Your task to perform on an android device: turn on location history Image 0: 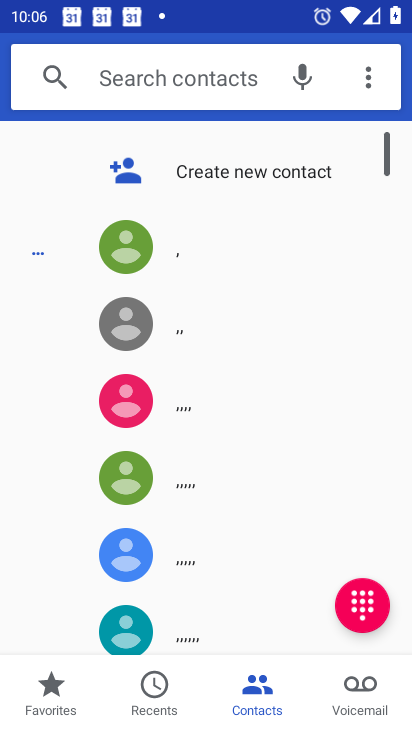
Step 0: press home button
Your task to perform on an android device: turn on location history Image 1: 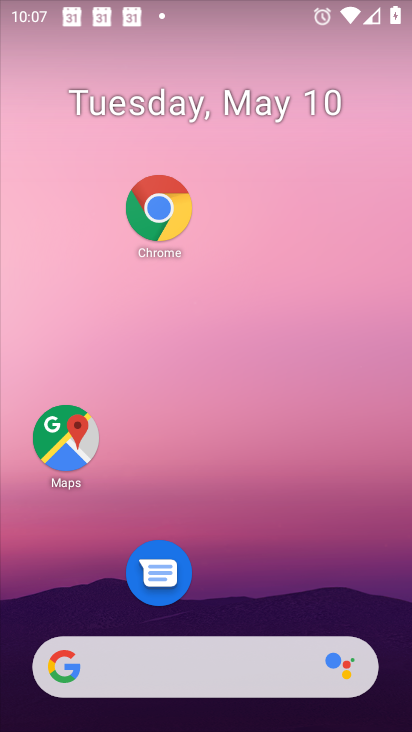
Step 1: drag from (288, 681) to (323, 229)
Your task to perform on an android device: turn on location history Image 2: 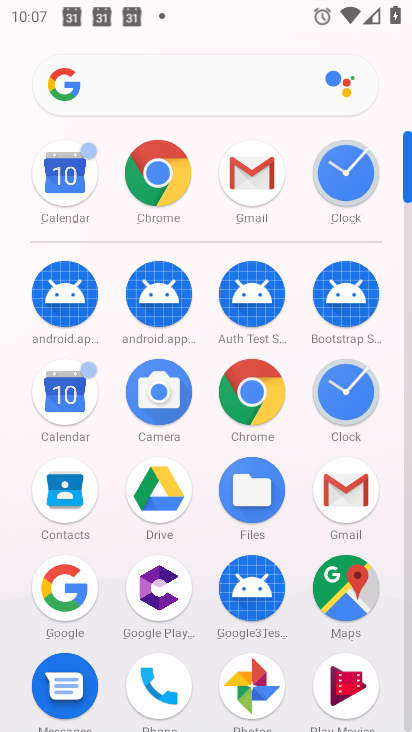
Step 2: drag from (192, 536) to (202, 337)
Your task to perform on an android device: turn on location history Image 3: 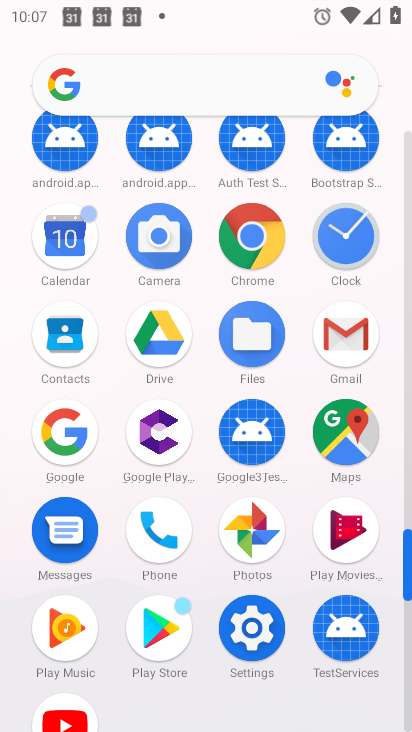
Step 3: click (255, 625)
Your task to perform on an android device: turn on location history Image 4: 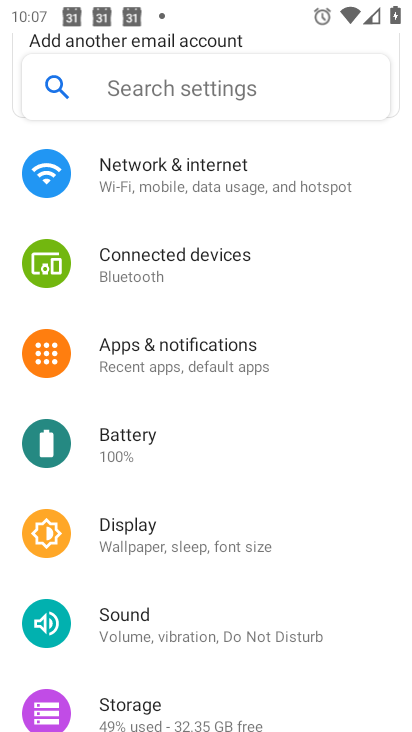
Step 4: click (176, 89)
Your task to perform on an android device: turn on location history Image 5: 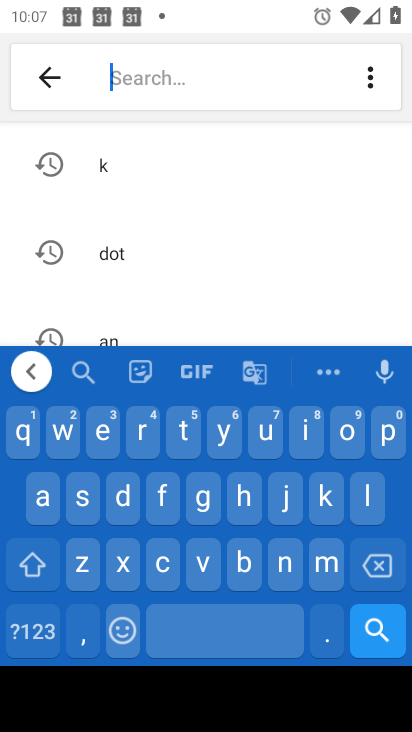
Step 5: click (364, 509)
Your task to perform on an android device: turn on location history Image 6: 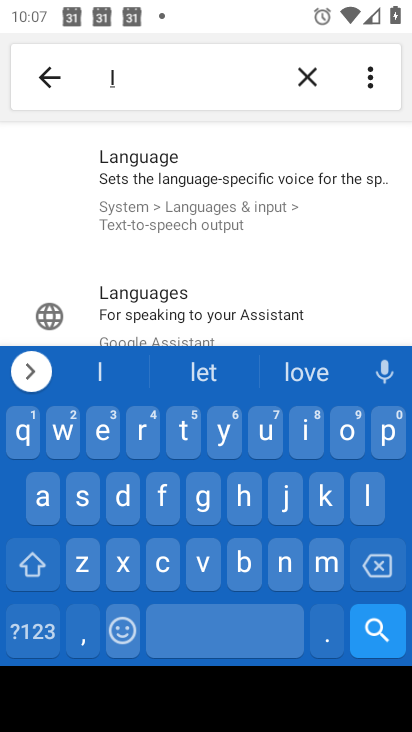
Step 6: click (341, 441)
Your task to perform on an android device: turn on location history Image 7: 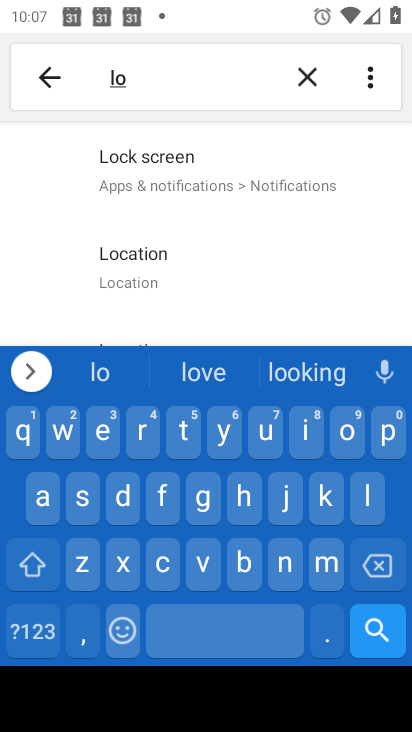
Step 7: click (142, 256)
Your task to perform on an android device: turn on location history Image 8: 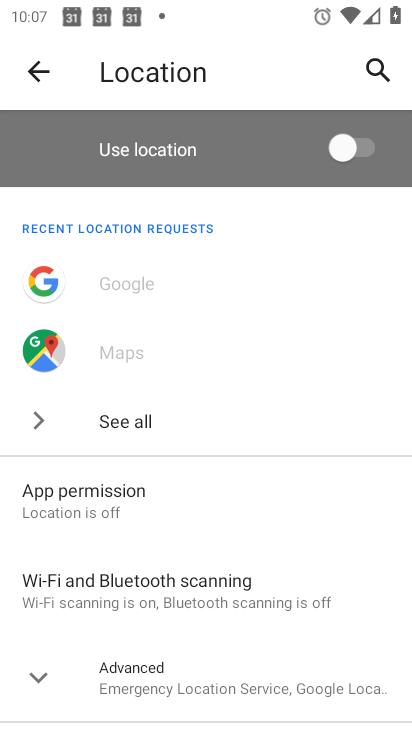
Step 8: click (97, 684)
Your task to perform on an android device: turn on location history Image 9: 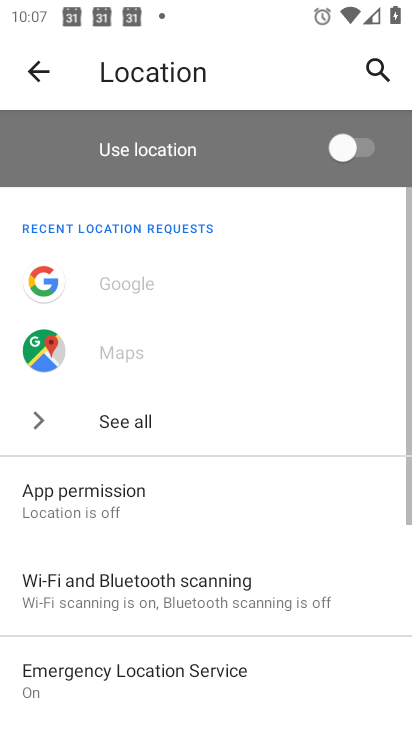
Step 9: drag from (159, 597) to (217, 367)
Your task to perform on an android device: turn on location history Image 10: 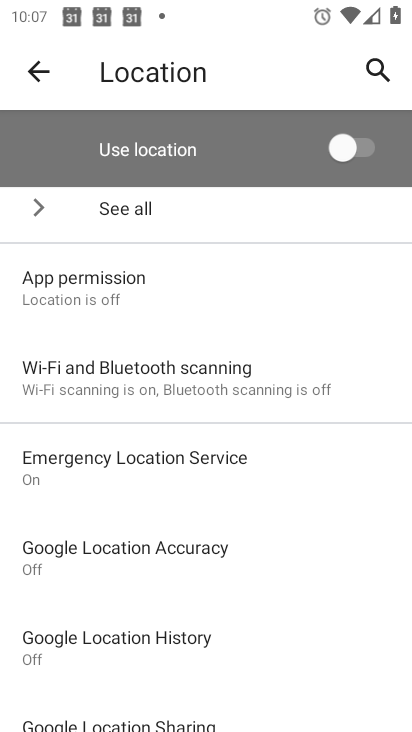
Step 10: click (161, 636)
Your task to perform on an android device: turn on location history Image 11: 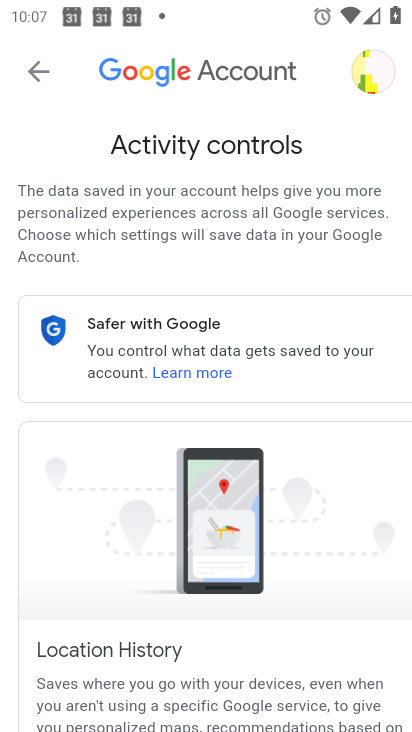
Step 11: task complete